Your task to perform on an android device: set default search engine in the chrome app Image 0: 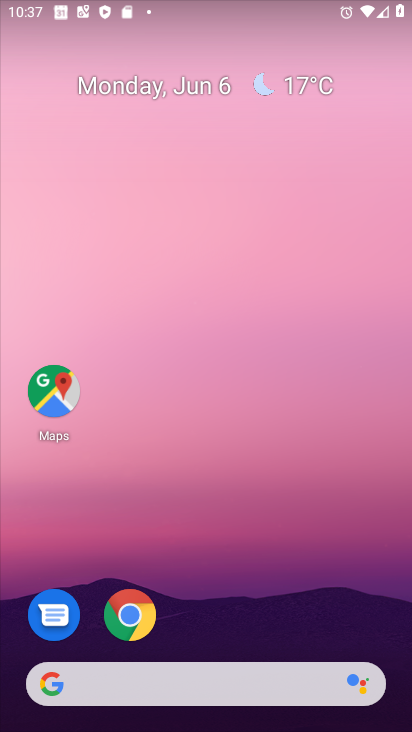
Step 0: click (126, 608)
Your task to perform on an android device: set default search engine in the chrome app Image 1: 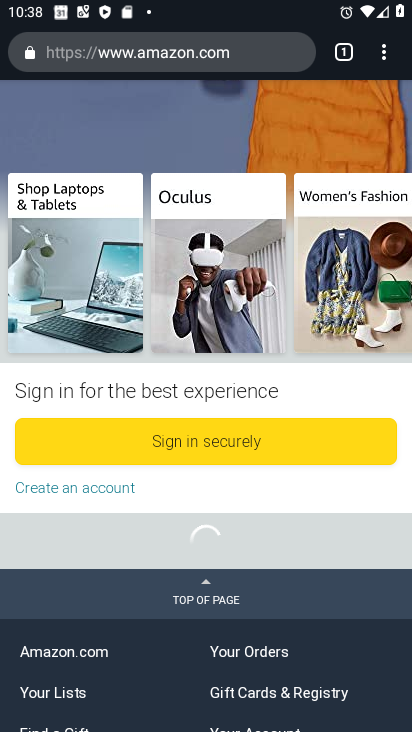
Step 1: click (385, 54)
Your task to perform on an android device: set default search engine in the chrome app Image 2: 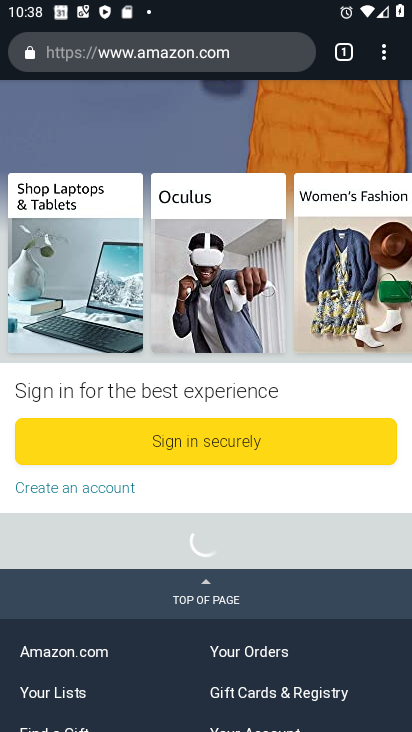
Step 2: click (389, 52)
Your task to perform on an android device: set default search engine in the chrome app Image 3: 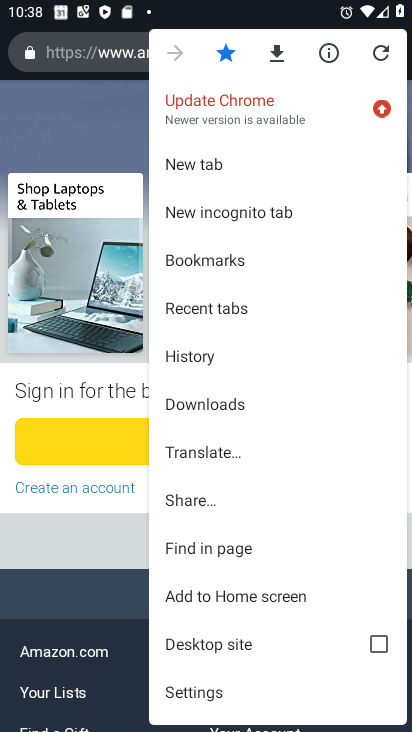
Step 3: click (240, 690)
Your task to perform on an android device: set default search engine in the chrome app Image 4: 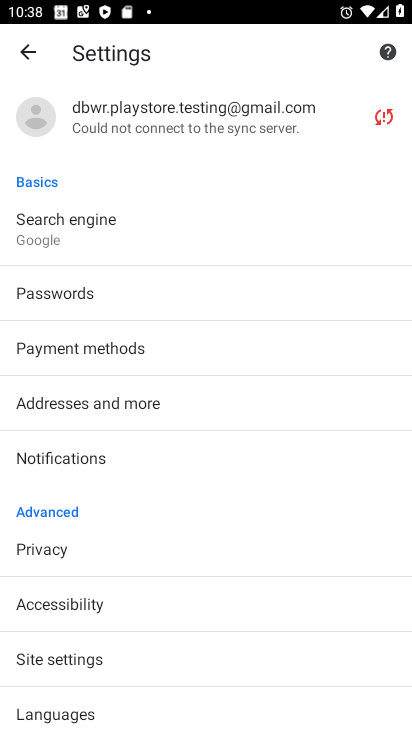
Step 4: click (101, 234)
Your task to perform on an android device: set default search engine in the chrome app Image 5: 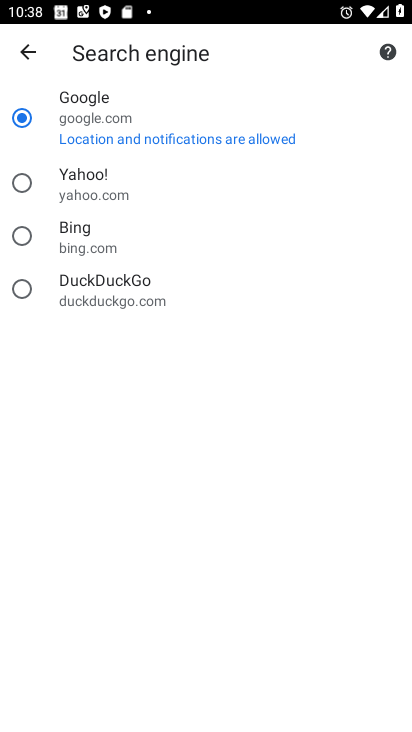
Step 5: click (21, 176)
Your task to perform on an android device: set default search engine in the chrome app Image 6: 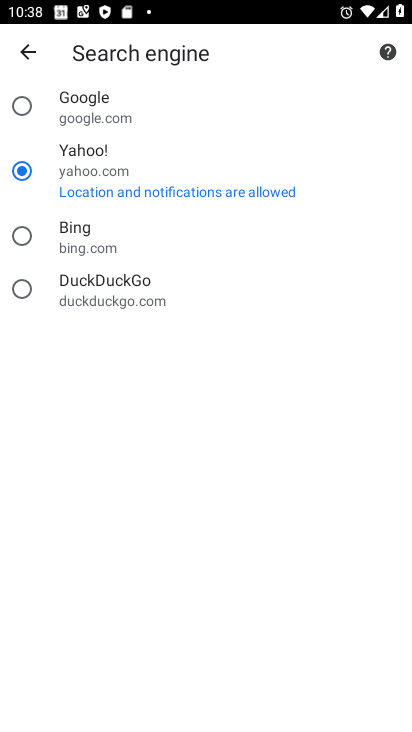
Step 6: task complete